Your task to perform on an android device: Set the phone to "Do not disturb". Image 0: 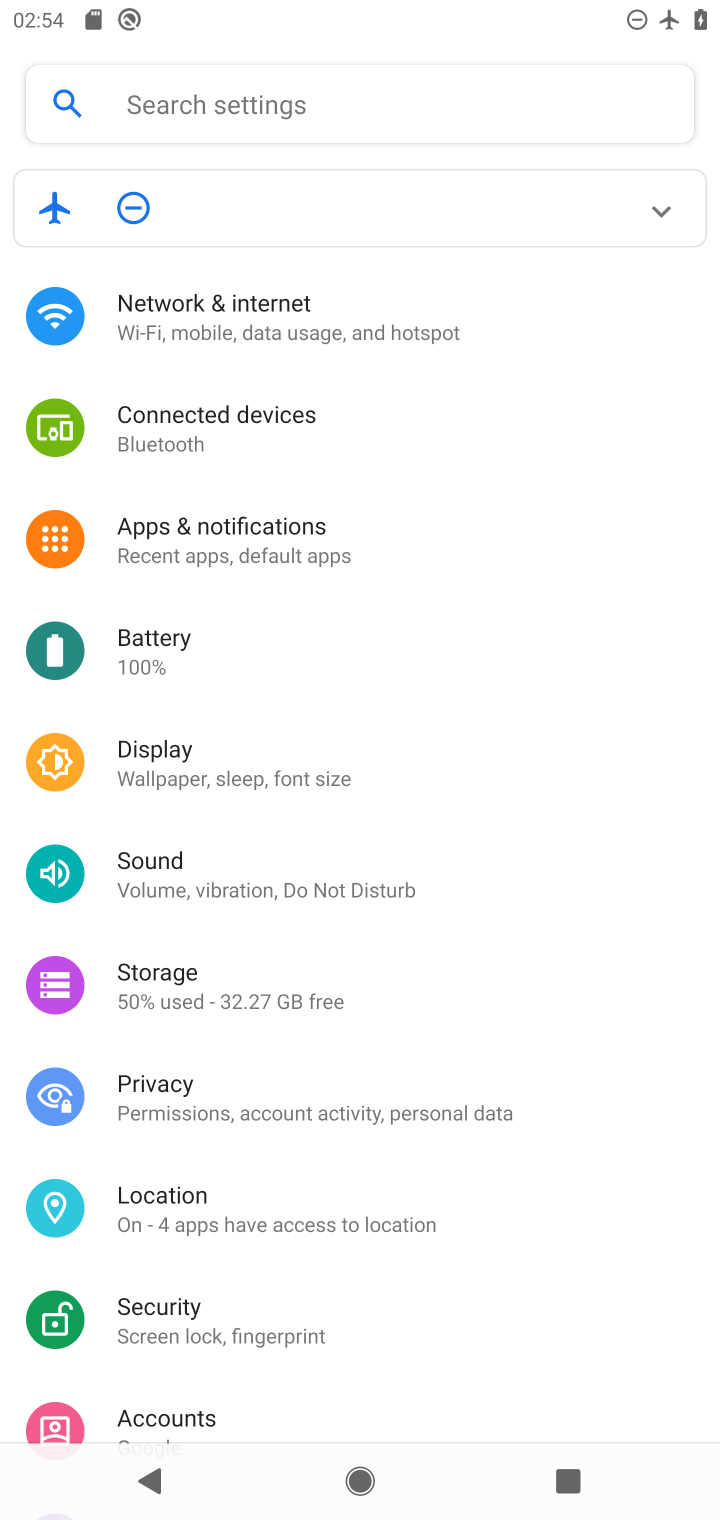
Step 0: press home button
Your task to perform on an android device: Set the phone to "Do not disturb". Image 1: 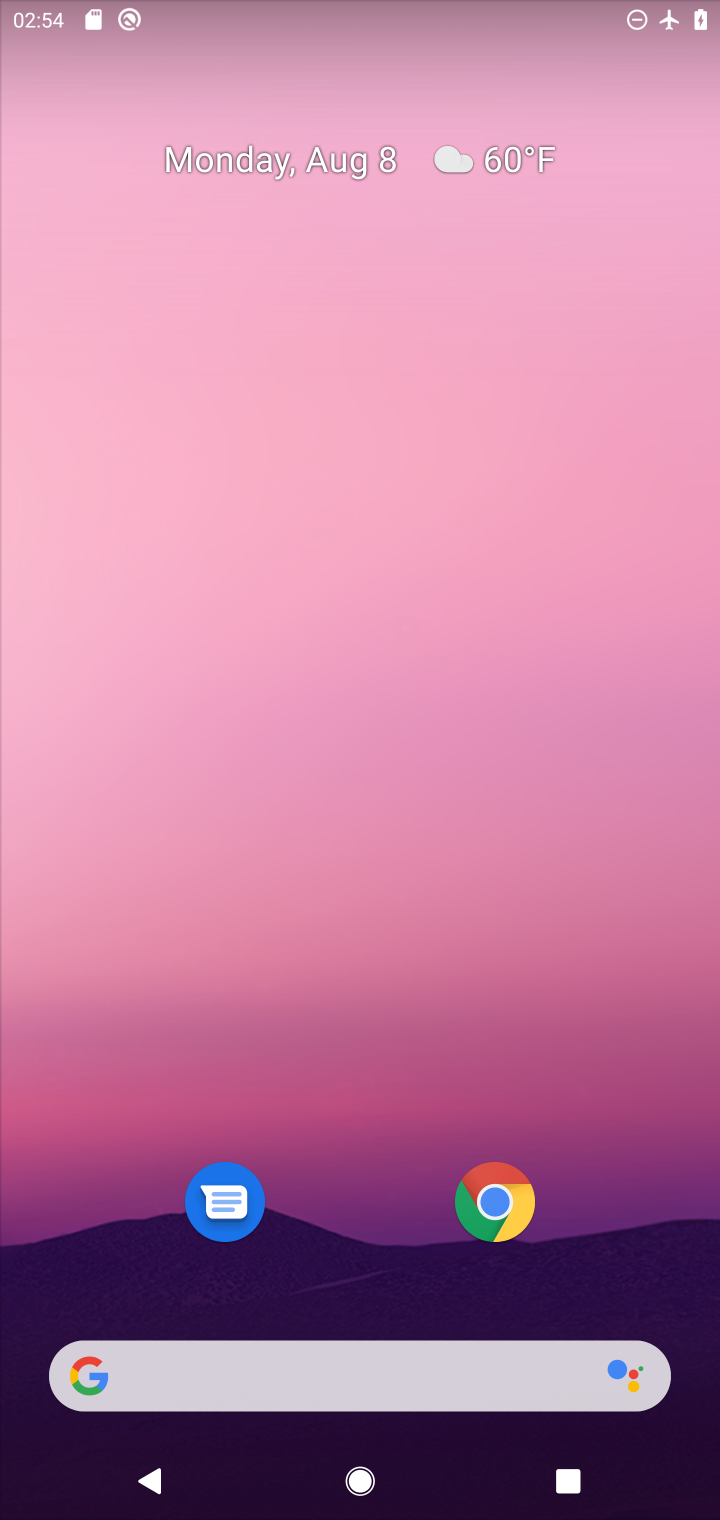
Step 1: drag from (357, 1183) to (442, 181)
Your task to perform on an android device: Set the phone to "Do not disturb". Image 2: 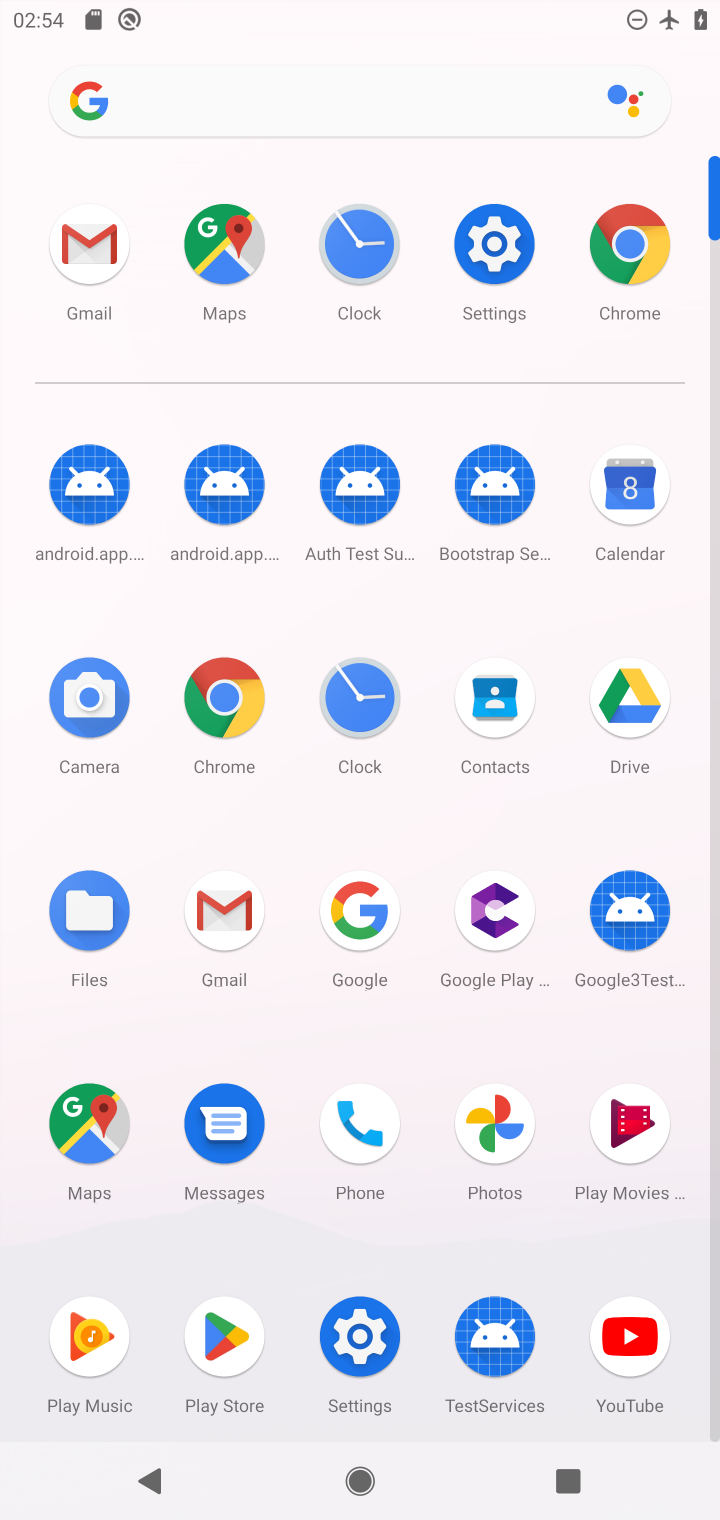
Step 2: click (496, 231)
Your task to perform on an android device: Set the phone to "Do not disturb". Image 3: 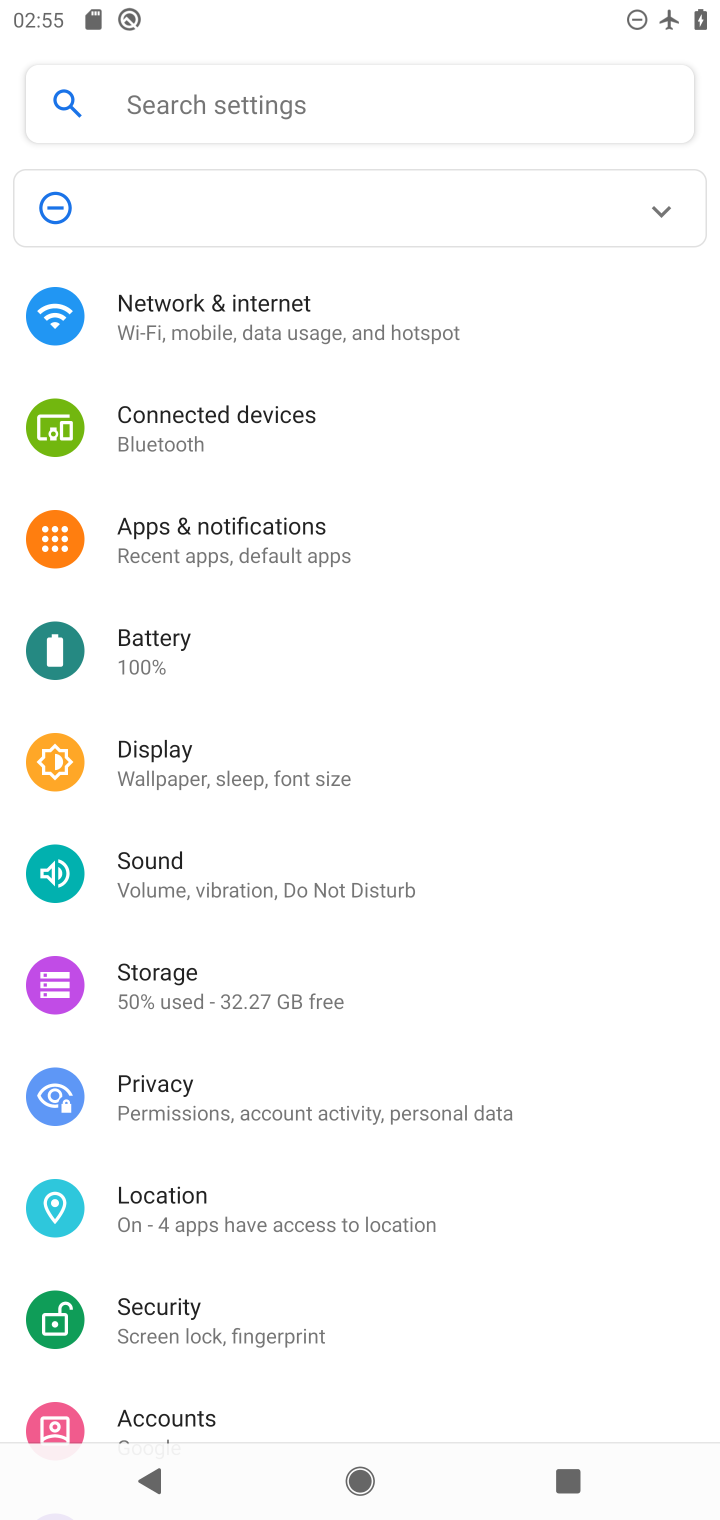
Step 3: click (371, 883)
Your task to perform on an android device: Set the phone to "Do not disturb". Image 4: 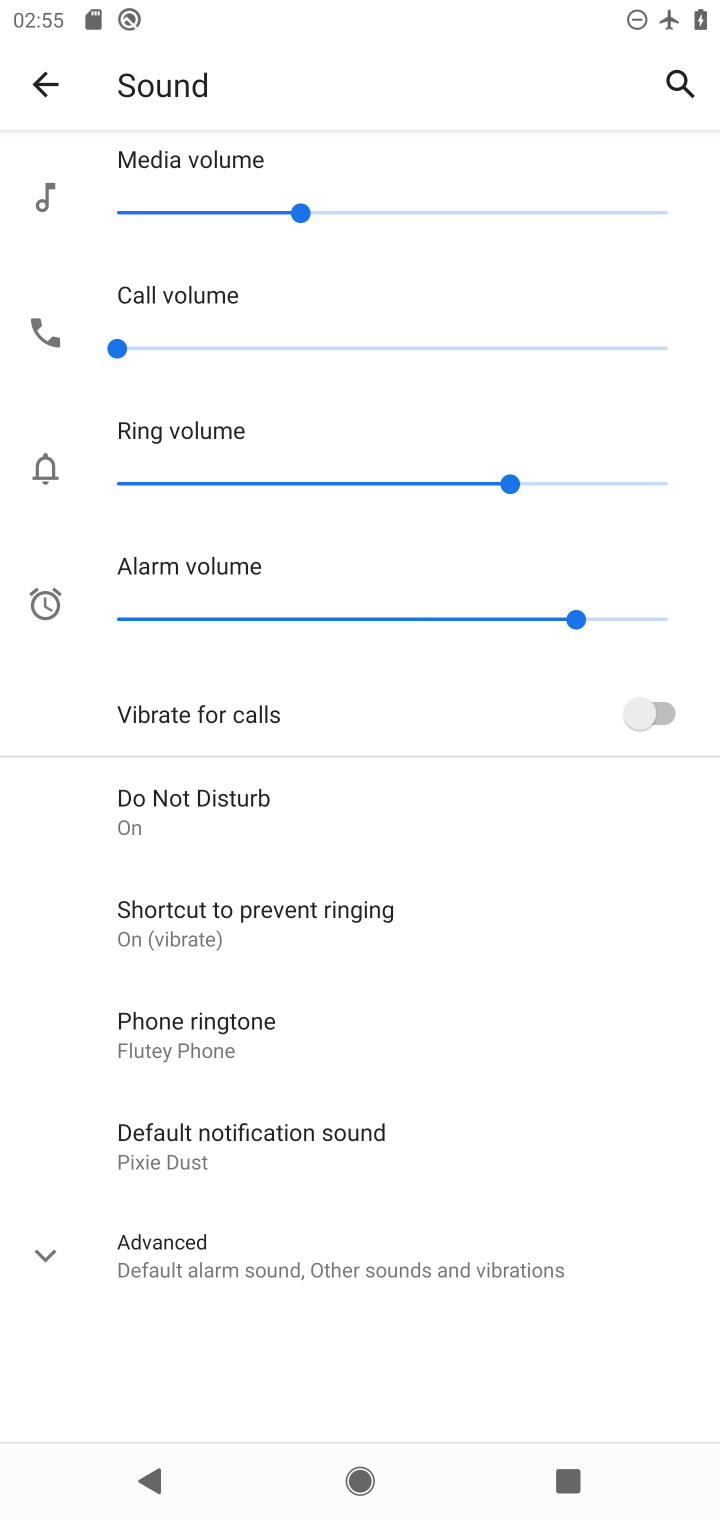
Step 4: click (325, 792)
Your task to perform on an android device: Set the phone to "Do not disturb". Image 5: 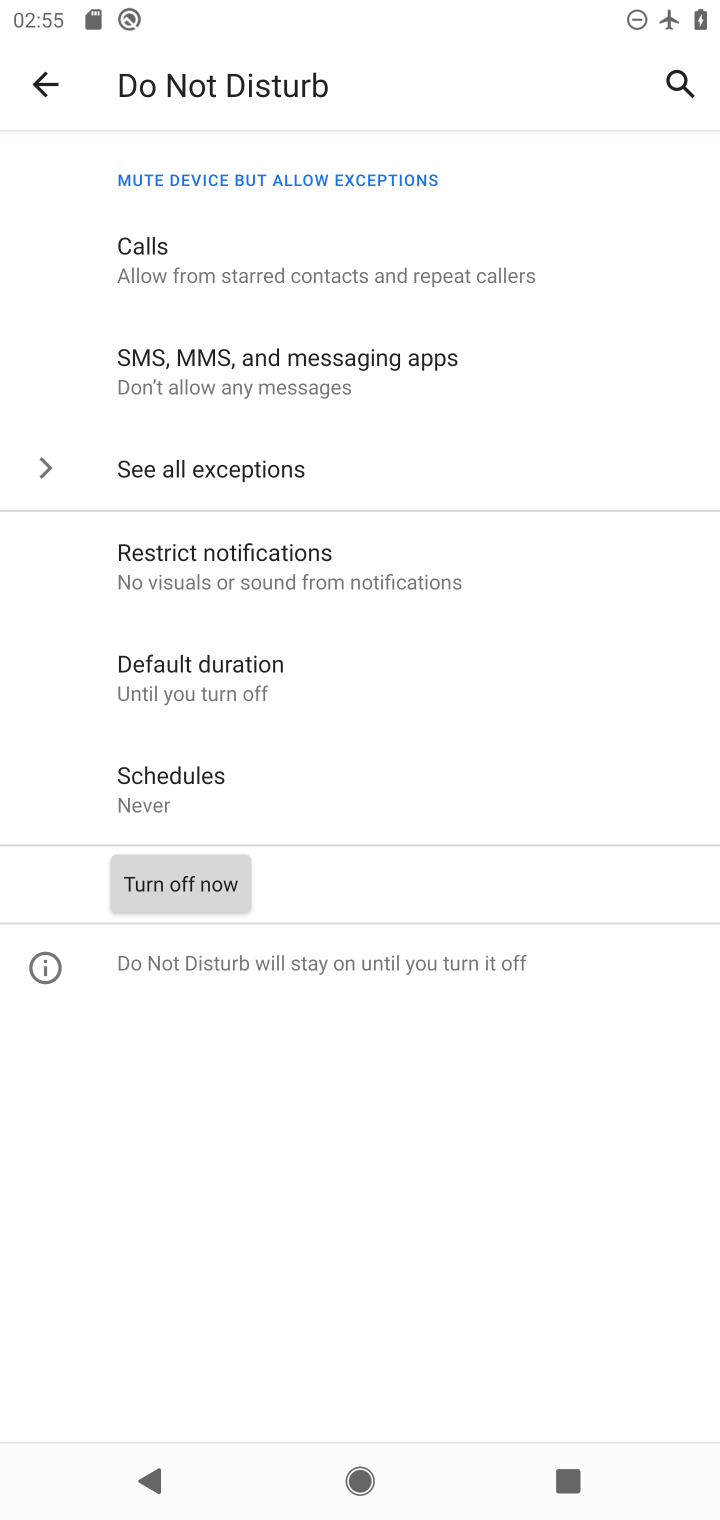
Step 5: task complete